Your task to perform on an android device: toggle pop-ups in chrome Image 0: 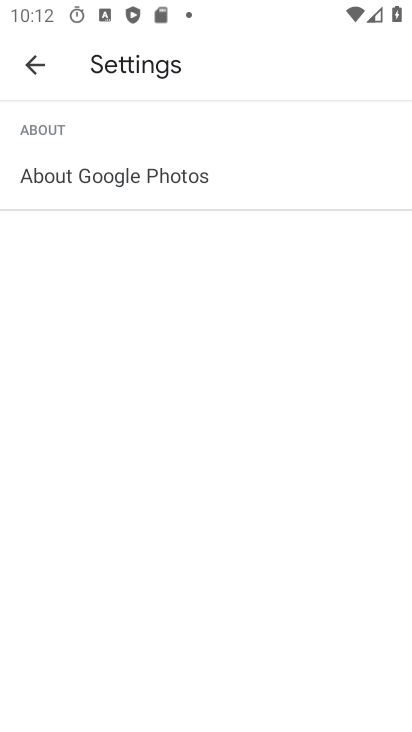
Step 0: press home button
Your task to perform on an android device: toggle pop-ups in chrome Image 1: 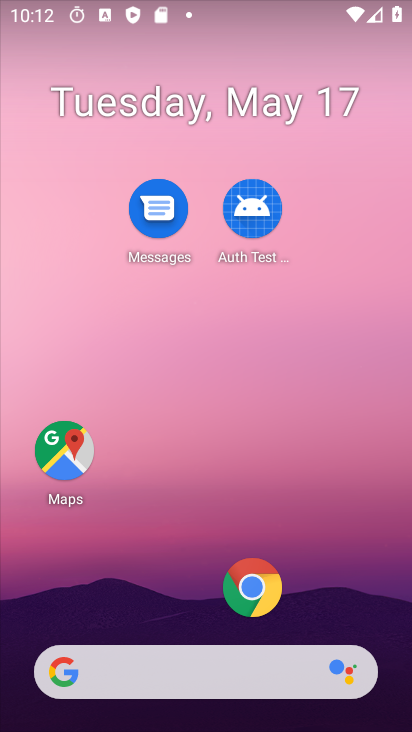
Step 1: drag from (215, 625) to (184, 213)
Your task to perform on an android device: toggle pop-ups in chrome Image 2: 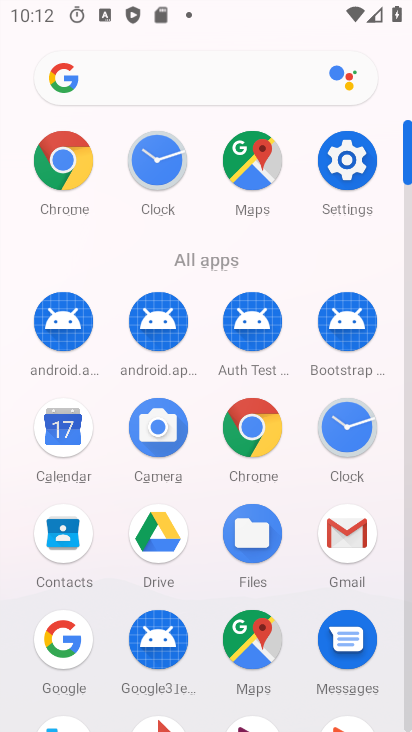
Step 2: click (258, 427)
Your task to perform on an android device: toggle pop-ups in chrome Image 3: 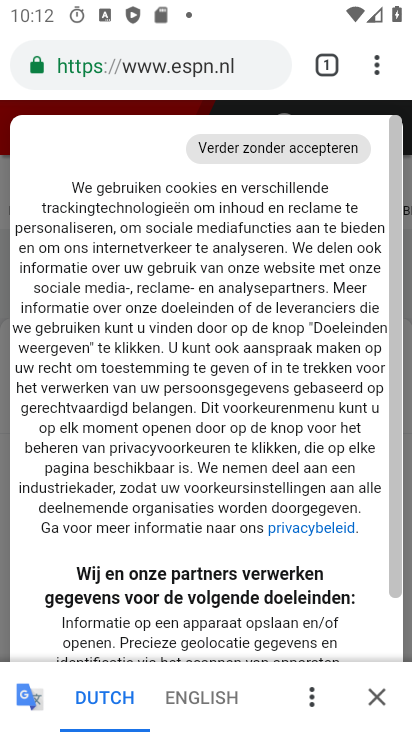
Step 3: click (376, 76)
Your task to perform on an android device: toggle pop-ups in chrome Image 4: 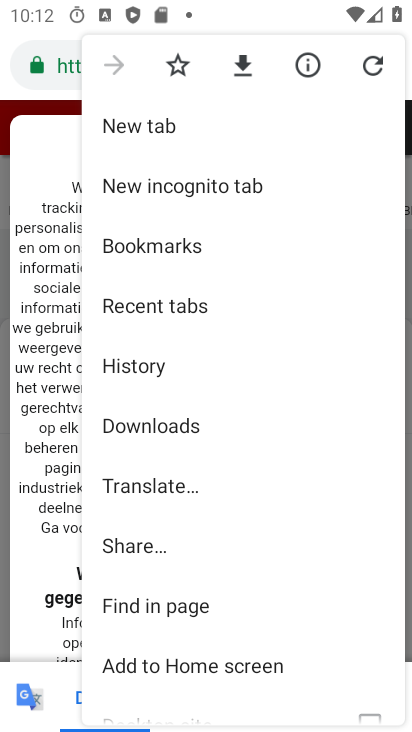
Step 4: click (378, 69)
Your task to perform on an android device: toggle pop-ups in chrome Image 5: 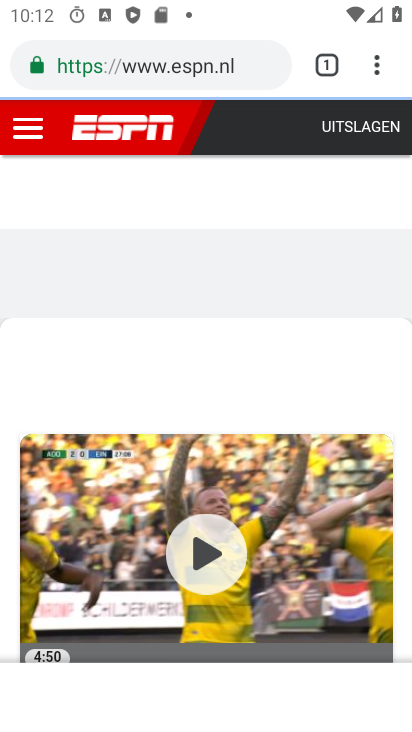
Step 5: drag from (278, 456) to (253, 234)
Your task to perform on an android device: toggle pop-ups in chrome Image 6: 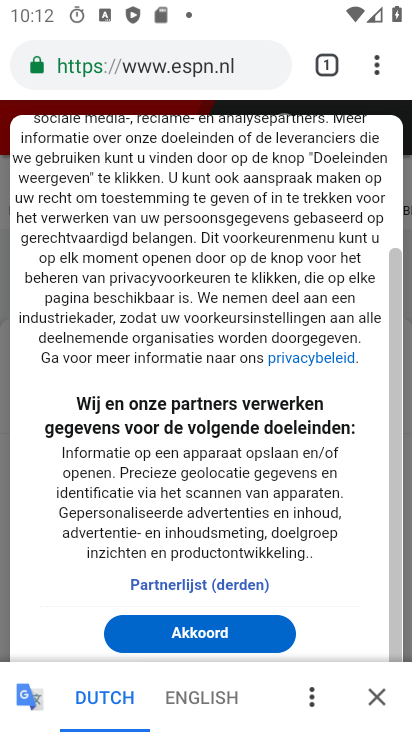
Step 6: click (373, 70)
Your task to perform on an android device: toggle pop-ups in chrome Image 7: 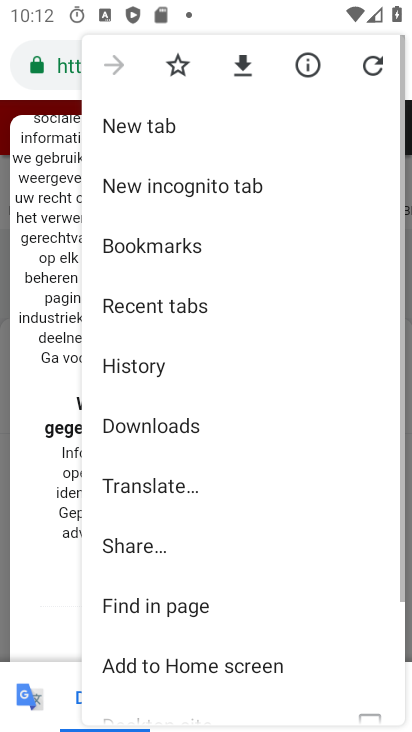
Step 7: click (371, 68)
Your task to perform on an android device: toggle pop-ups in chrome Image 8: 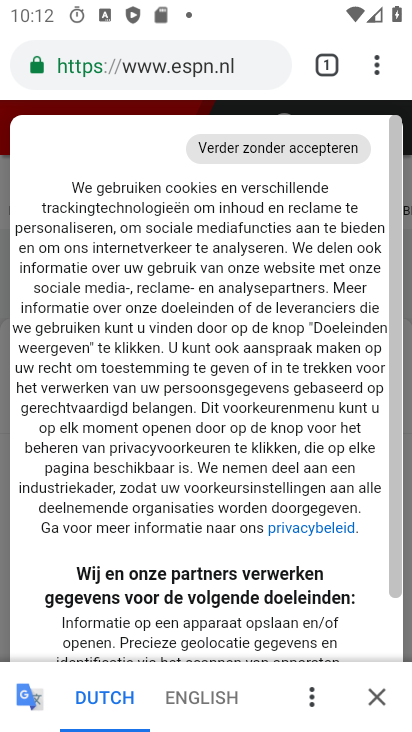
Step 8: click (379, 73)
Your task to perform on an android device: toggle pop-ups in chrome Image 9: 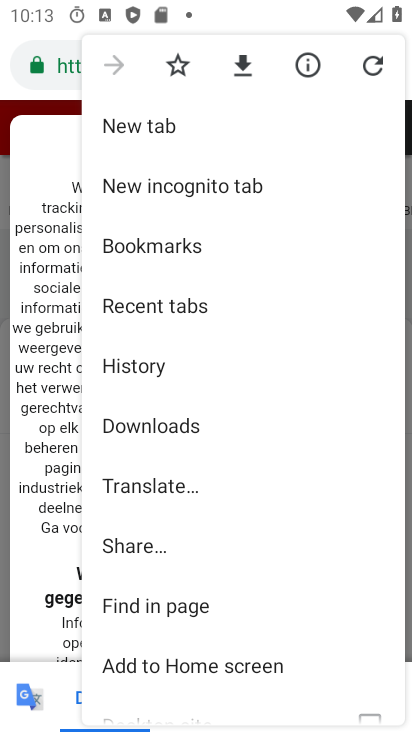
Step 9: drag from (186, 585) to (243, 253)
Your task to perform on an android device: toggle pop-ups in chrome Image 10: 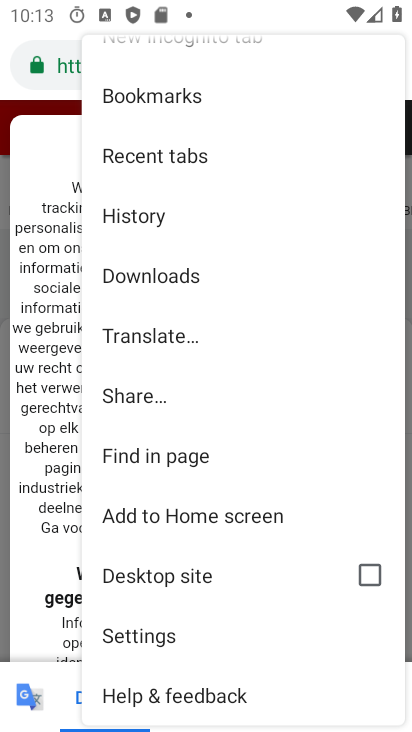
Step 10: drag from (185, 571) to (254, 192)
Your task to perform on an android device: toggle pop-ups in chrome Image 11: 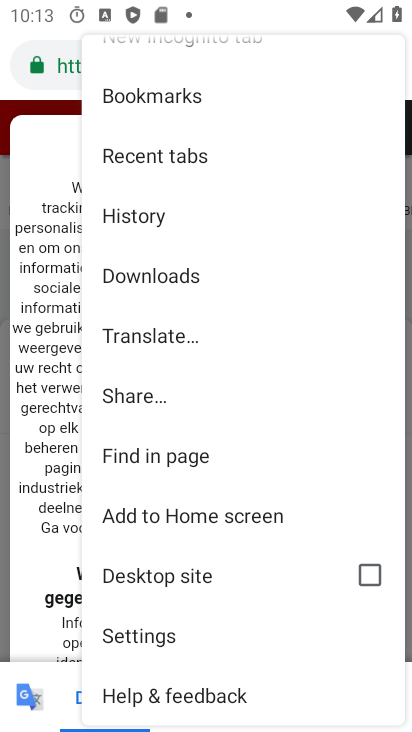
Step 11: drag from (229, 557) to (314, 108)
Your task to perform on an android device: toggle pop-ups in chrome Image 12: 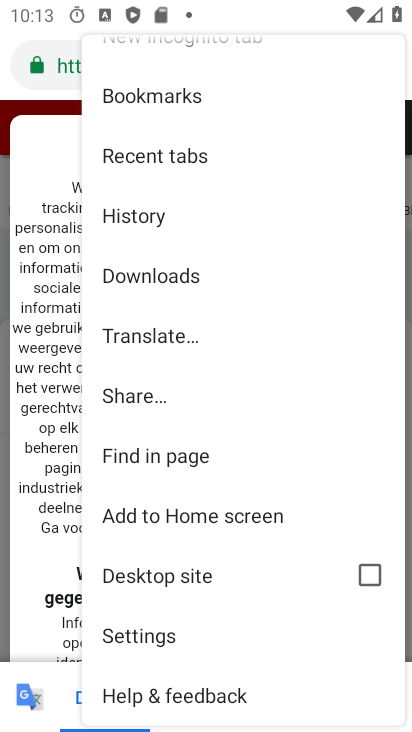
Step 12: drag from (206, 585) to (261, 348)
Your task to perform on an android device: toggle pop-ups in chrome Image 13: 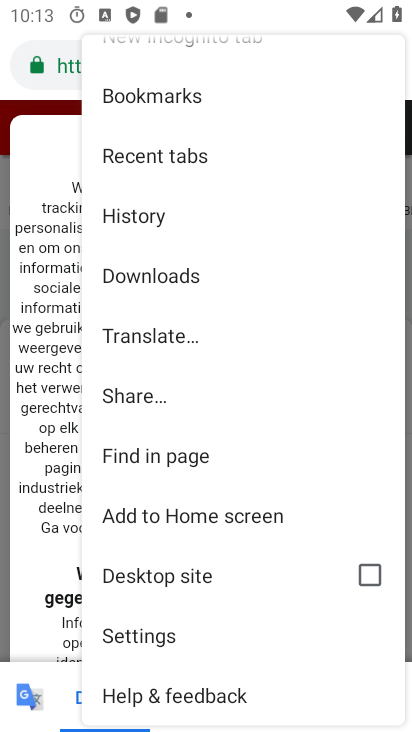
Step 13: click (164, 647)
Your task to perform on an android device: toggle pop-ups in chrome Image 14: 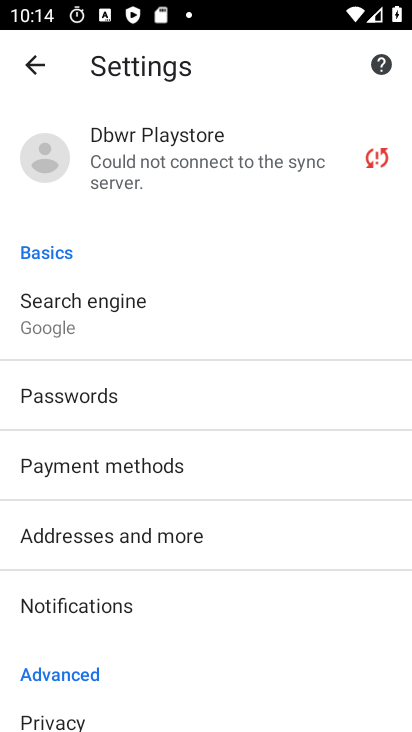
Step 14: drag from (152, 645) to (219, 202)
Your task to perform on an android device: toggle pop-ups in chrome Image 15: 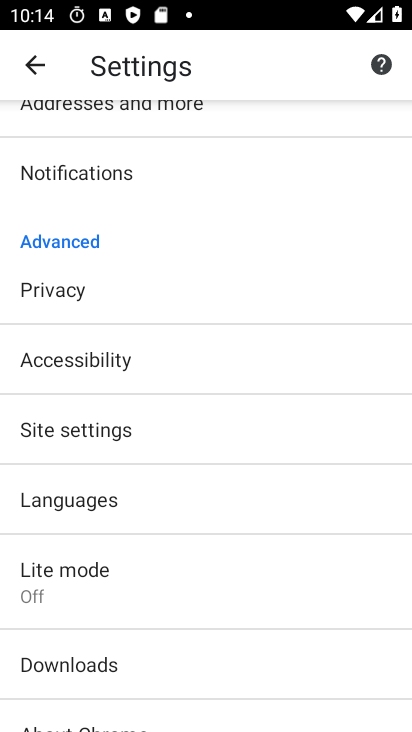
Step 15: click (149, 434)
Your task to perform on an android device: toggle pop-ups in chrome Image 16: 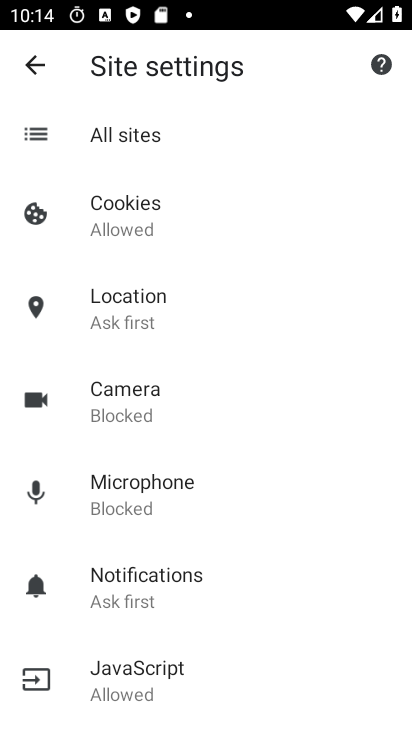
Step 16: drag from (198, 508) to (286, 151)
Your task to perform on an android device: toggle pop-ups in chrome Image 17: 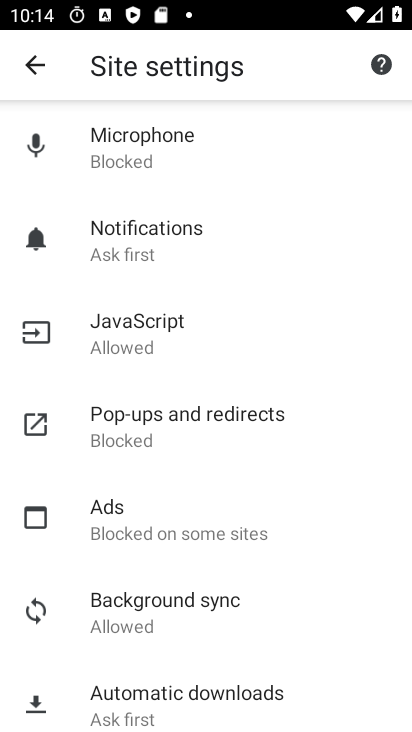
Step 17: click (213, 427)
Your task to perform on an android device: toggle pop-ups in chrome Image 18: 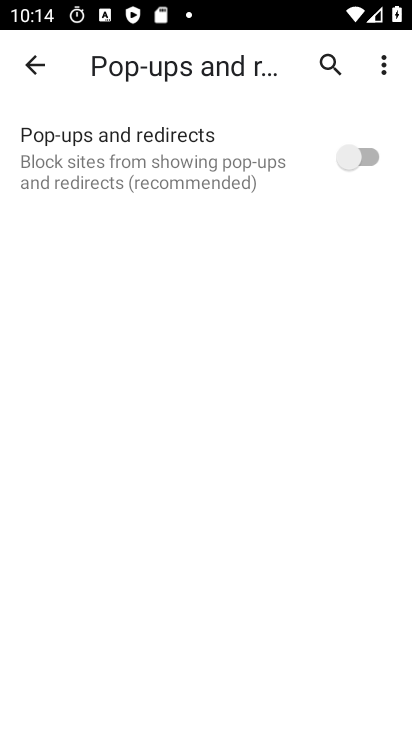
Step 18: click (342, 154)
Your task to perform on an android device: toggle pop-ups in chrome Image 19: 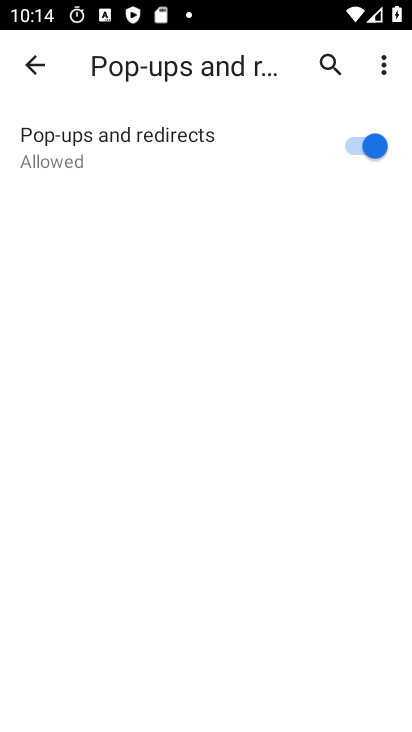
Step 19: task complete